Your task to perform on an android device: move an email to a new category in the gmail app Image 0: 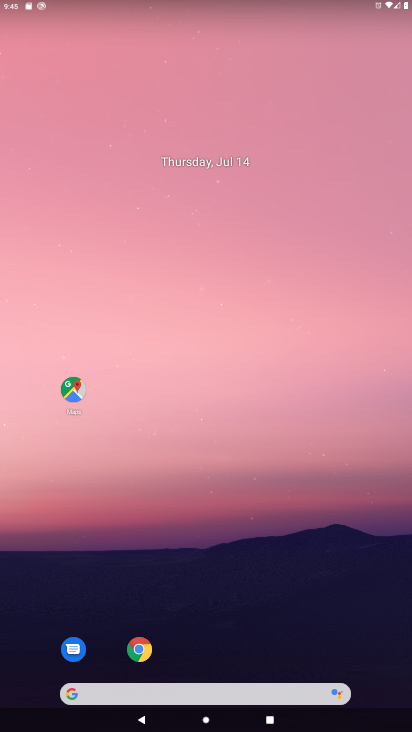
Step 0: drag from (174, 690) to (227, 23)
Your task to perform on an android device: move an email to a new category in the gmail app Image 1: 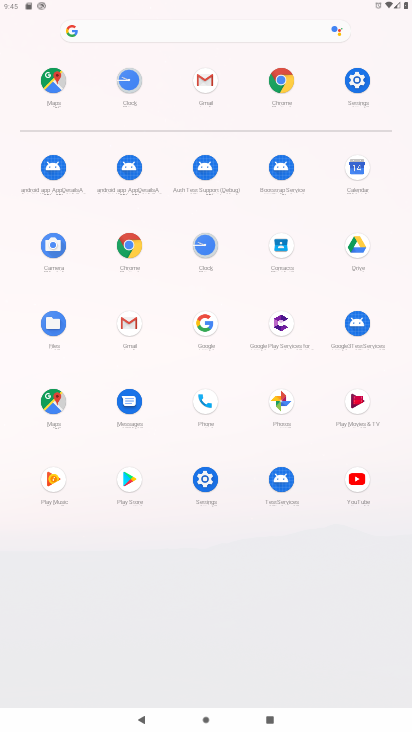
Step 1: click (208, 81)
Your task to perform on an android device: move an email to a new category in the gmail app Image 2: 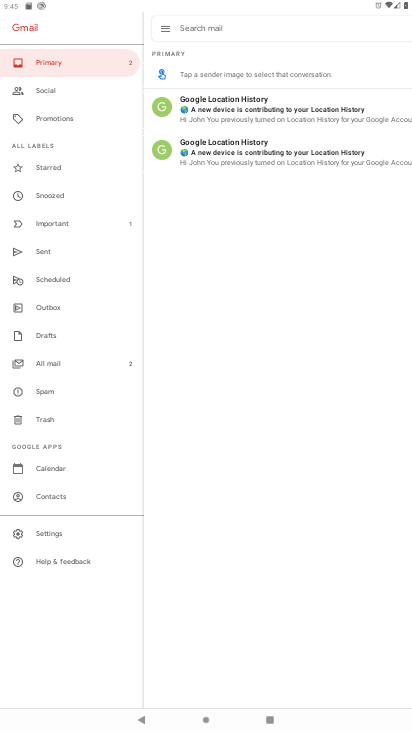
Step 2: click (254, 110)
Your task to perform on an android device: move an email to a new category in the gmail app Image 3: 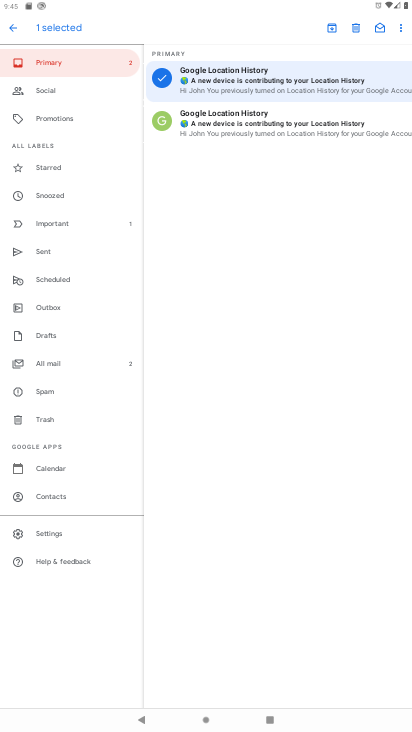
Step 3: click (399, 25)
Your task to perform on an android device: move an email to a new category in the gmail app Image 4: 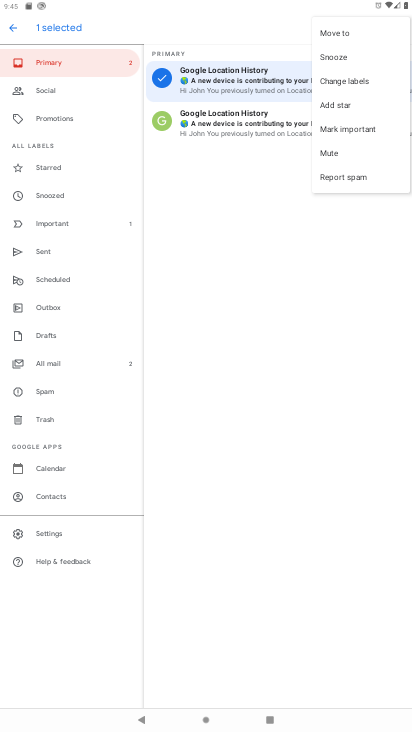
Step 4: click (363, 31)
Your task to perform on an android device: move an email to a new category in the gmail app Image 5: 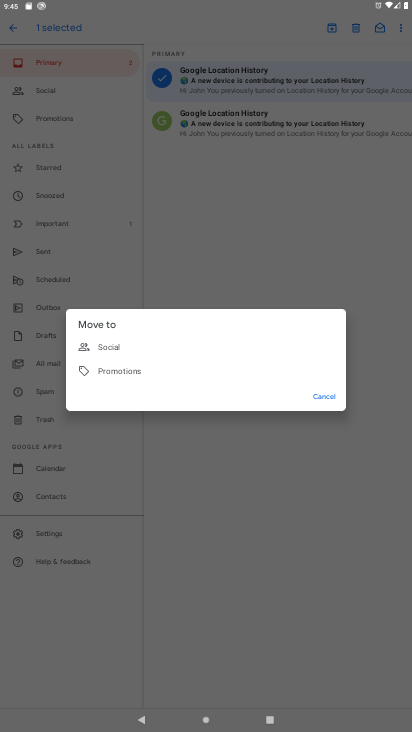
Step 5: click (130, 363)
Your task to perform on an android device: move an email to a new category in the gmail app Image 6: 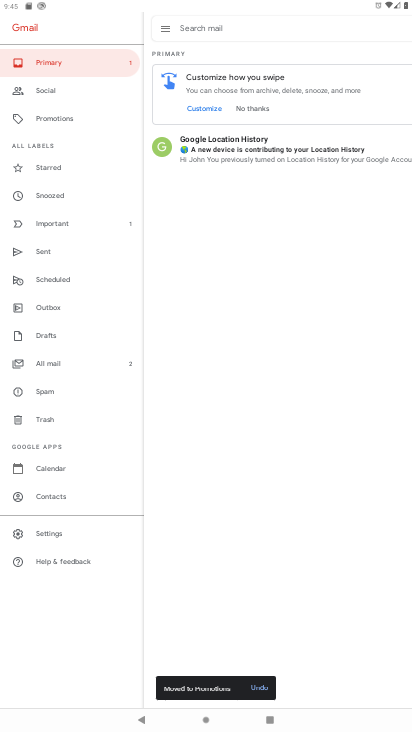
Step 6: task complete